Your task to perform on an android device: move an email to a new category in the gmail app Image 0: 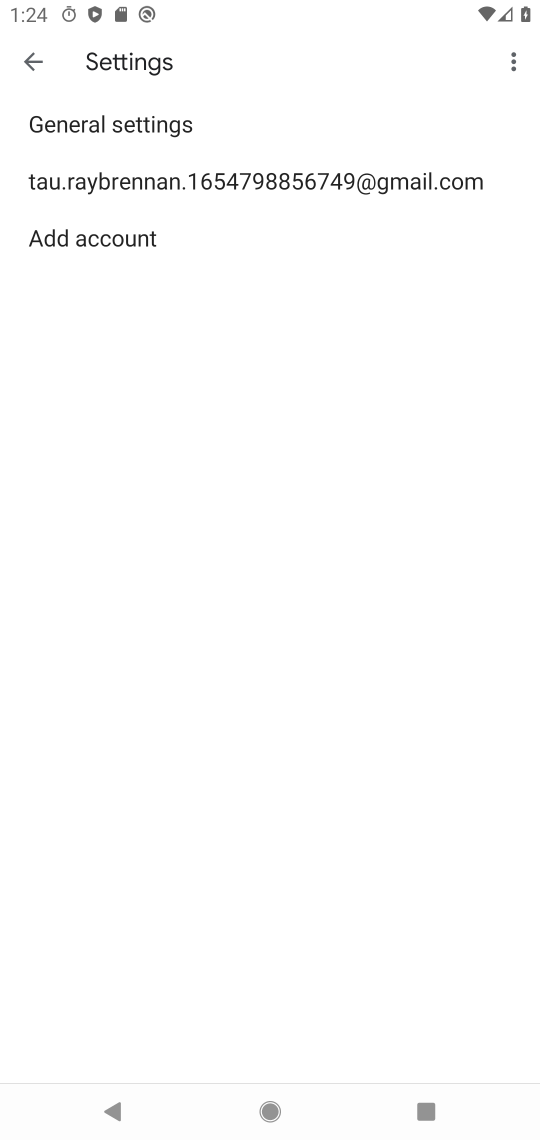
Step 0: press home button
Your task to perform on an android device: move an email to a new category in the gmail app Image 1: 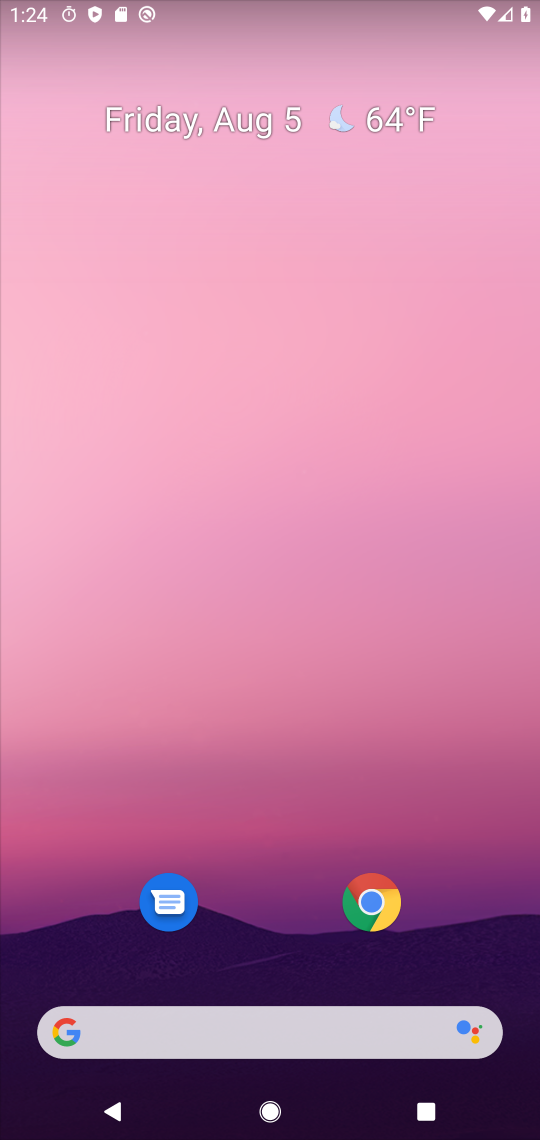
Step 1: drag from (331, 1057) to (336, 160)
Your task to perform on an android device: move an email to a new category in the gmail app Image 2: 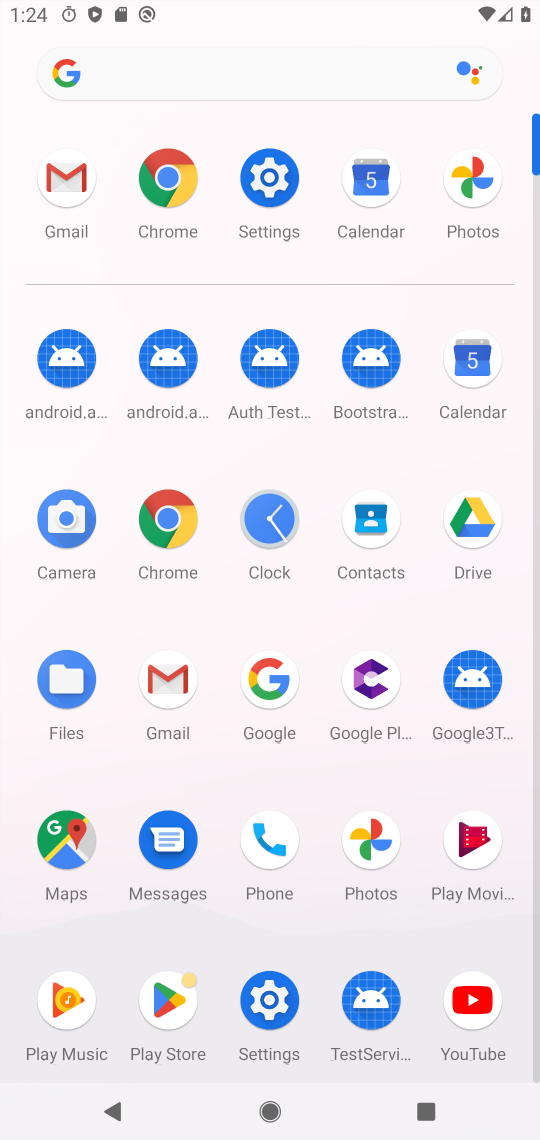
Step 2: click (60, 207)
Your task to perform on an android device: move an email to a new category in the gmail app Image 3: 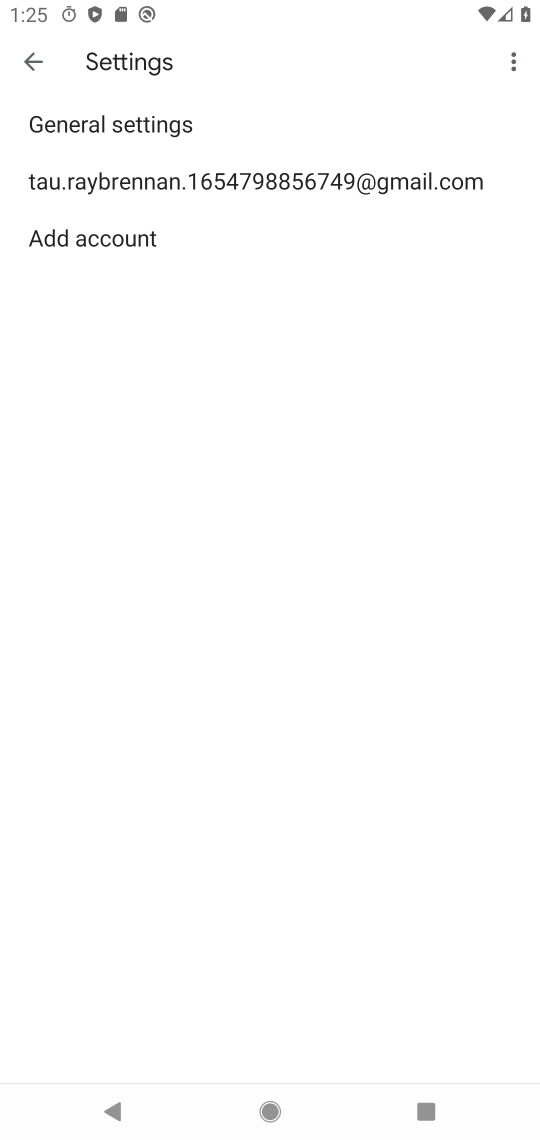
Step 3: click (71, 202)
Your task to perform on an android device: move an email to a new category in the gmail app Image 4: 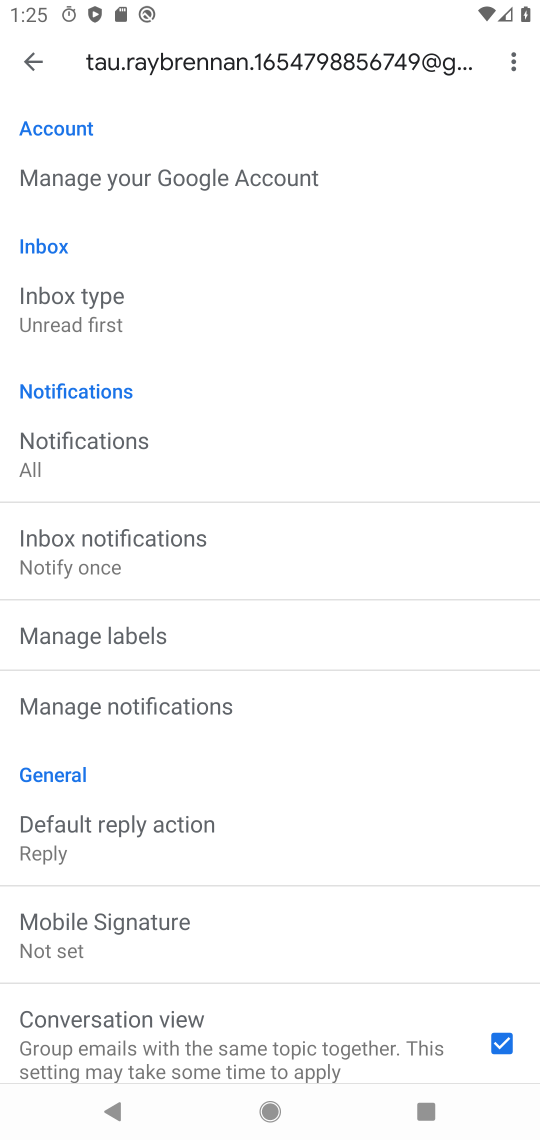
Step 4: drag from (139, 265) to (240, 563)
Your task to perform on an android device: move an email to a new category in the gmail app Image 5: 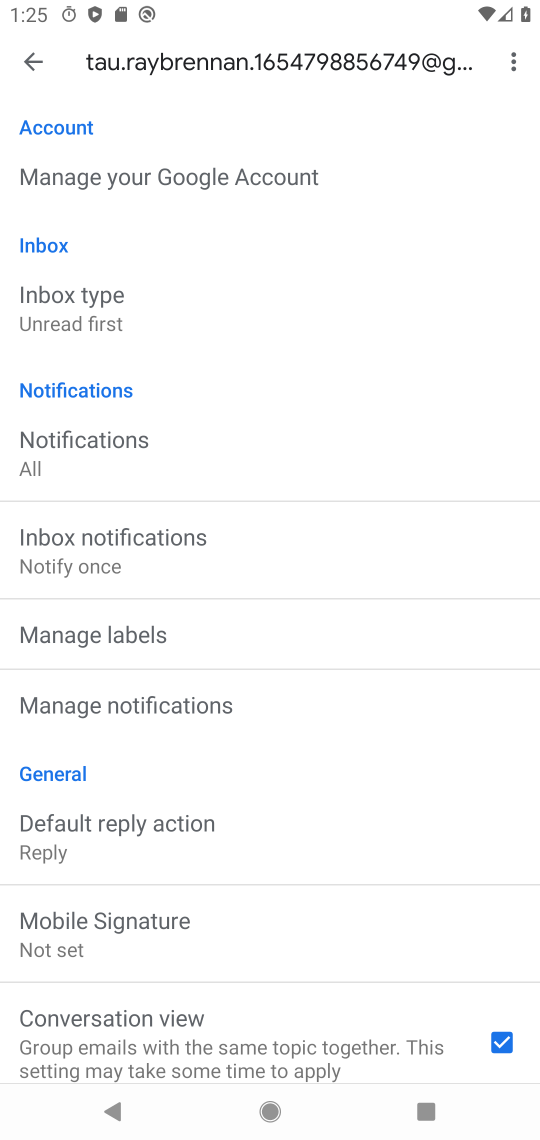
Step 5: drag from (137, 318) to (152, 552)
Your task to perform on an android device: move an email to a new category in the gmail app Image 6: 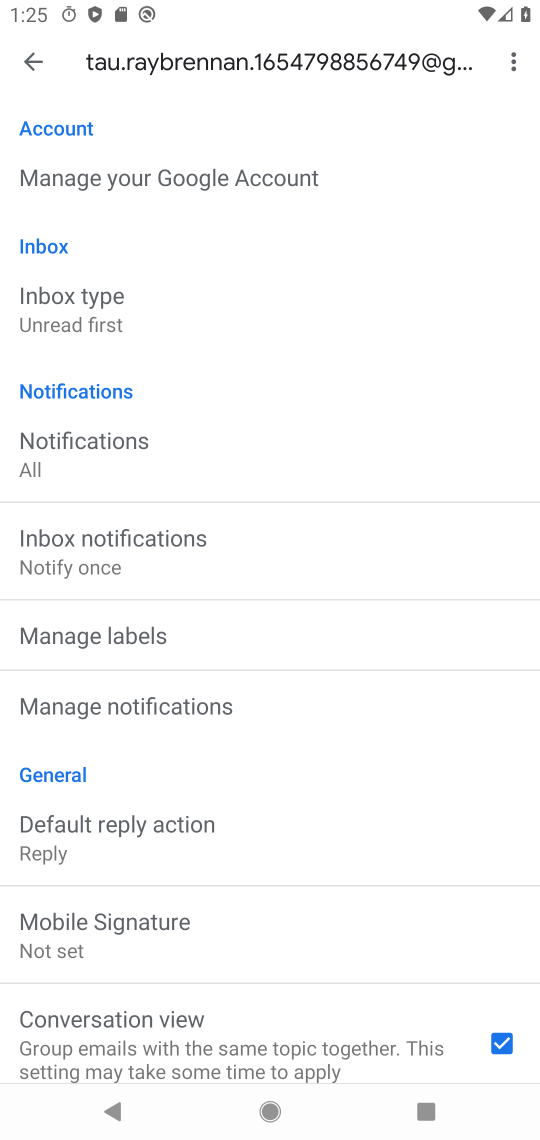
Step 6: click (150, 311)
Your task to perform on an android device: move an email to a new category in the gmail app Image 7: 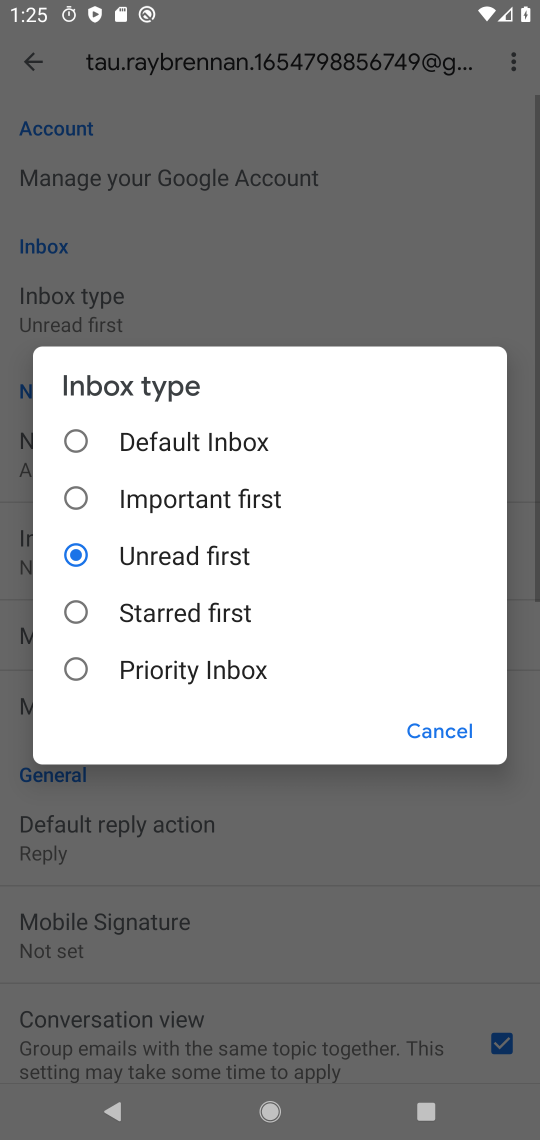
Step 7: click (101, 442)
Your task to perform on an android device: move an email to a new category in the gmail app Image 8: 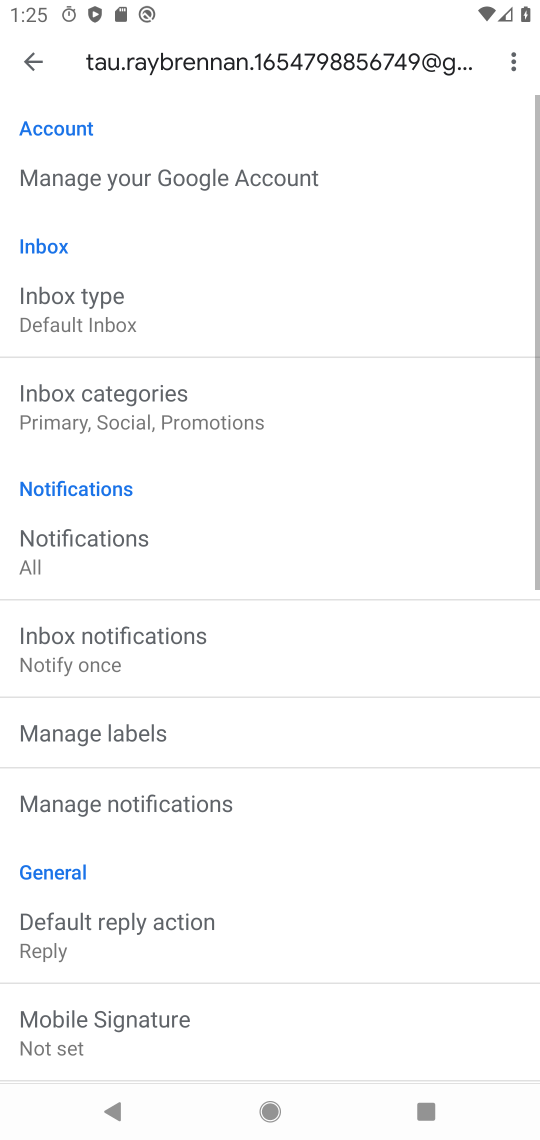
Step 8: click (113, 404)
Your task to perform on an android device: move an email to a new category in the gmail app Image 9: 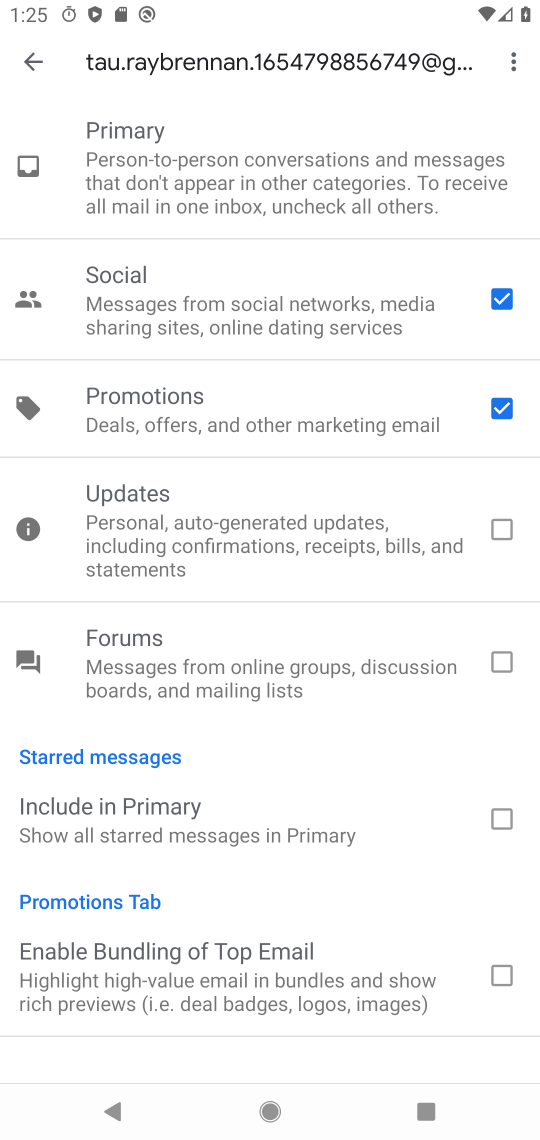
Step 9: click (491, 518)
Your task to perform on an android device: move an email to a new category in the gmail app Image 10: 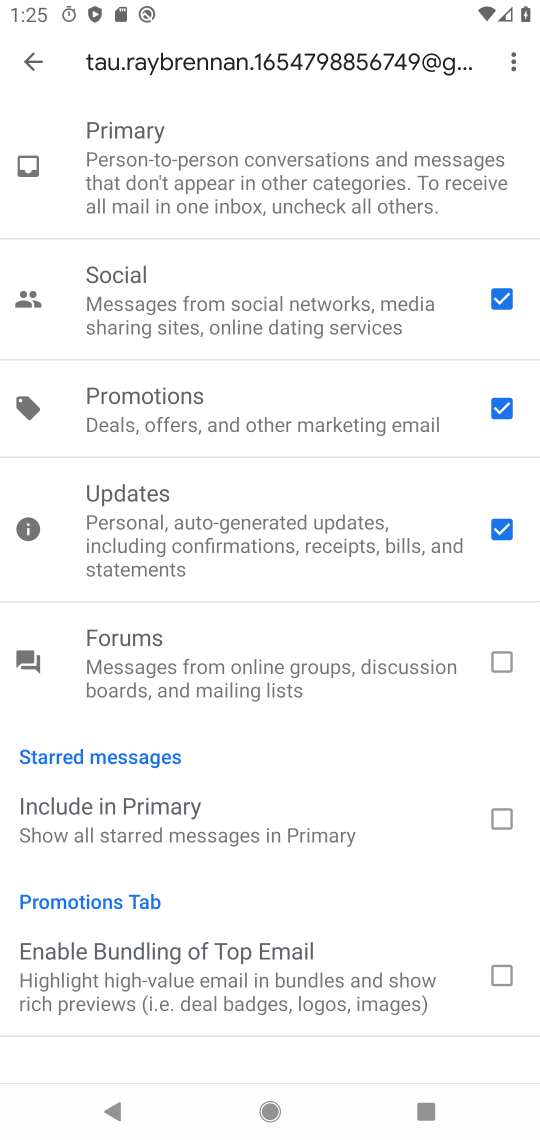
Step 10: task complete